Your task to perform on an android device: turn on bluetooth scan Image 0: 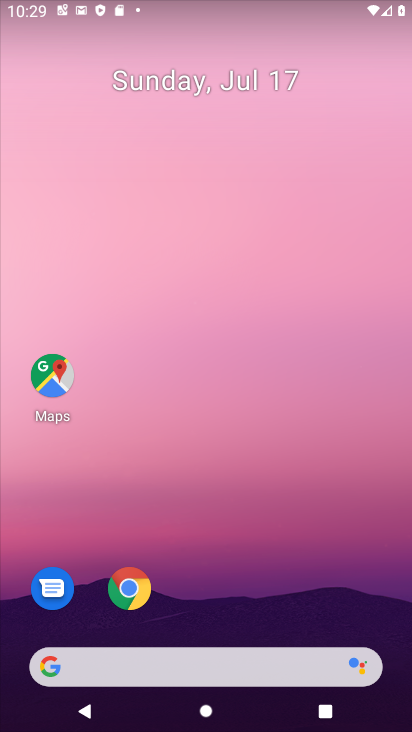
Step 0: press home button
Your task to perform on an android device: turn on bluetooth scan Image 1: 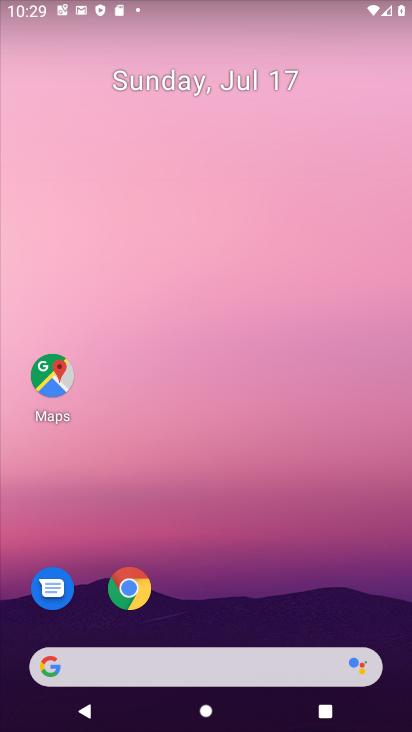
Step 1: drag from (223, 577) to (330, 45)
Your task to perform on an android device: turn on bluetooth scan Image 2: 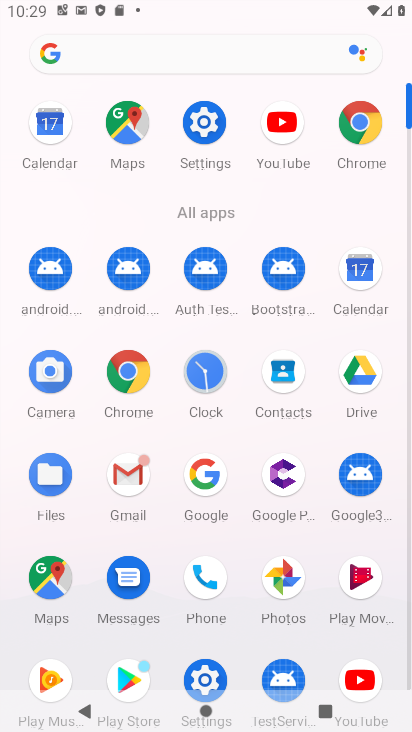
Step 2: click (206, 135)
Your task to perform on an android device: turn on bluetooth scan Image 3: 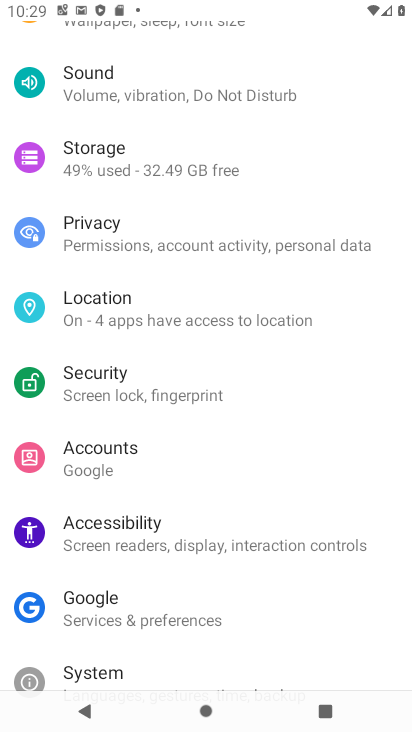
Step 3: drag from (145, 191) to (127, 602)
Your task to perform on an android device: turn on bluetooth scan Image 4: 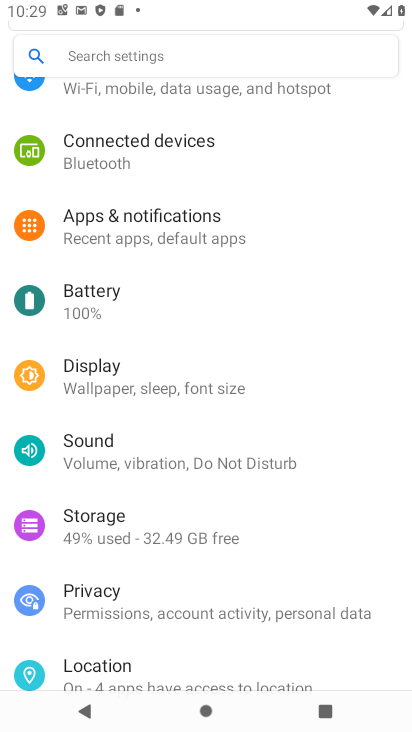
Step 4: click (120, 666)
Your task to perform on an android device: turn on bluetooth scan Image 5: 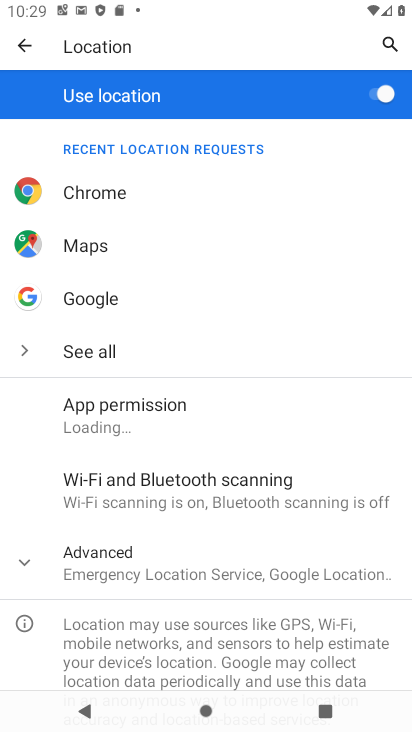
Step 5: click (143, 492)
Your task to perform on an android device: turn on bluetooth scan Image 6: 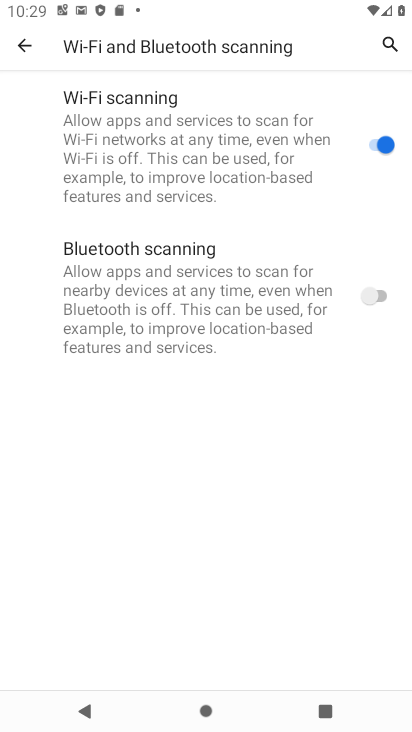
Step 6: click (298, 272)
Your task to perform on an android device: turn on bluetooth scan Image 7: 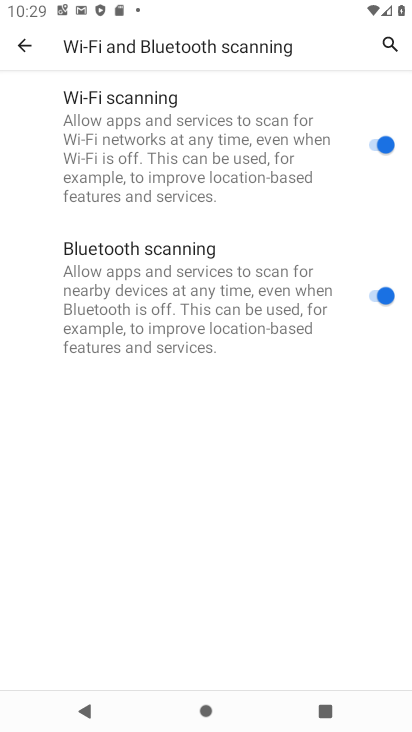
Step 7: task complete